Your task to perform on an android device: toggle location history Image 0: 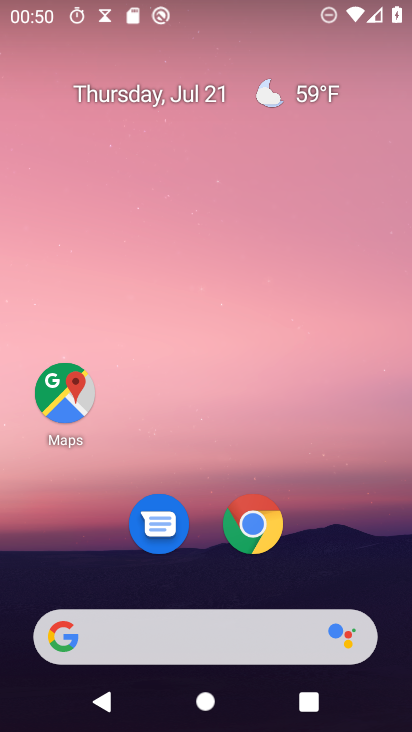
Step 0: press home button
Your task to perform on an android device: toggle location history Image 1: 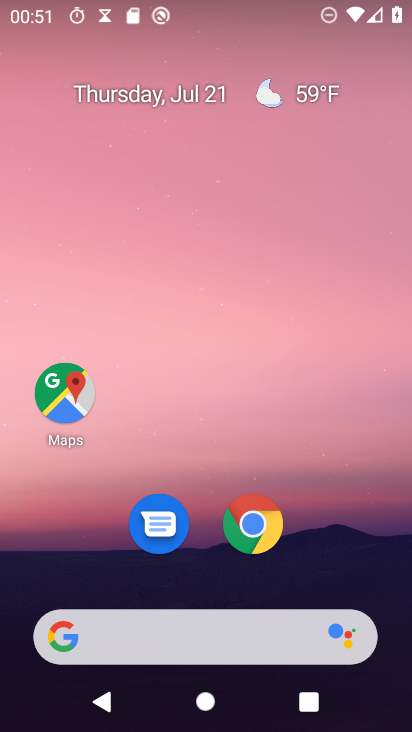
Step 1: drag from (188, 641) to (284, 25)
Your task to perform on an android device: toggle location history Image 2: 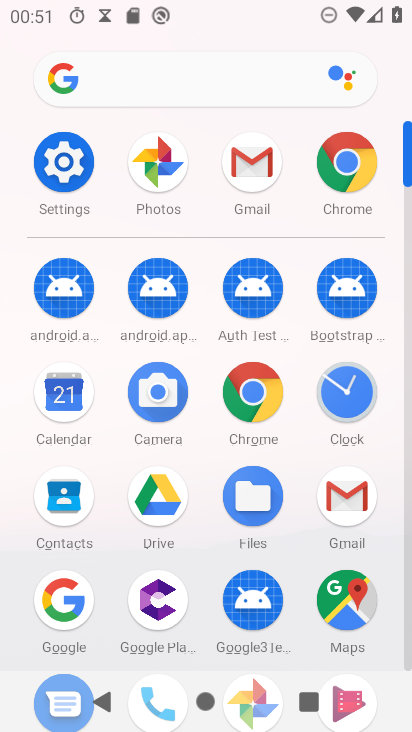
Step 2: click (344, 602)
Your task to perform on an android device: toggle location history Image 3: 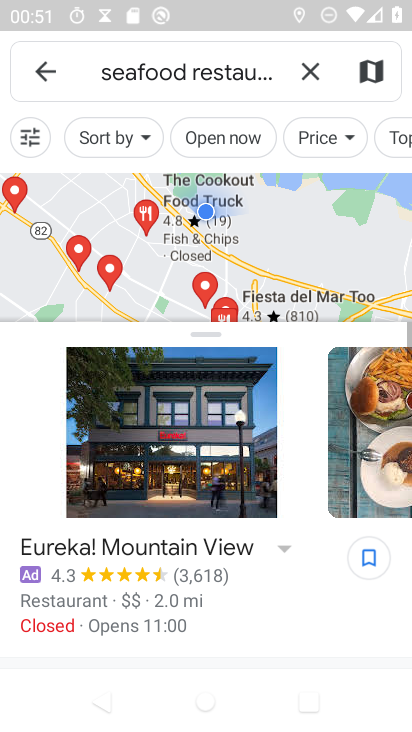
Step 3: click (43, 69)
Your task to perform on an android device: toggle location history Image 4: 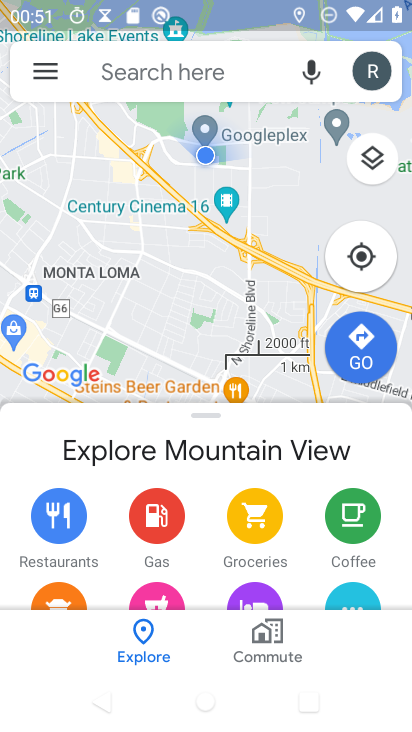
Step 4: click (43, 70)
Your task to perform on an android device: toggle location history Image 5: 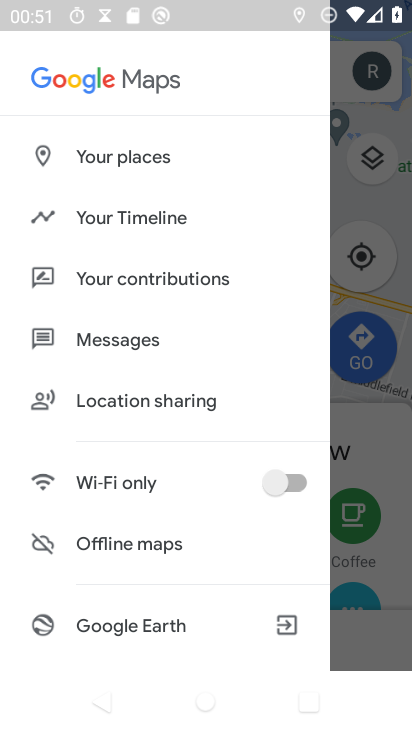
Step 5: click (158, 217)
Your task to perform on an android device: toggle location history Image 6: 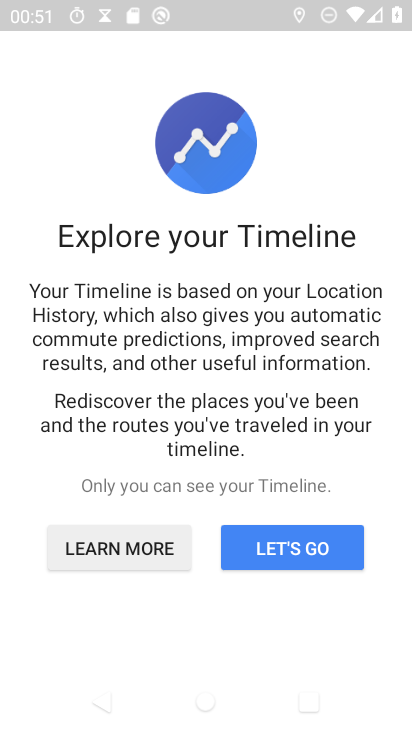
Step 6: click (287, 539)
Your task to perform on an android device: toggle location history Image 7: 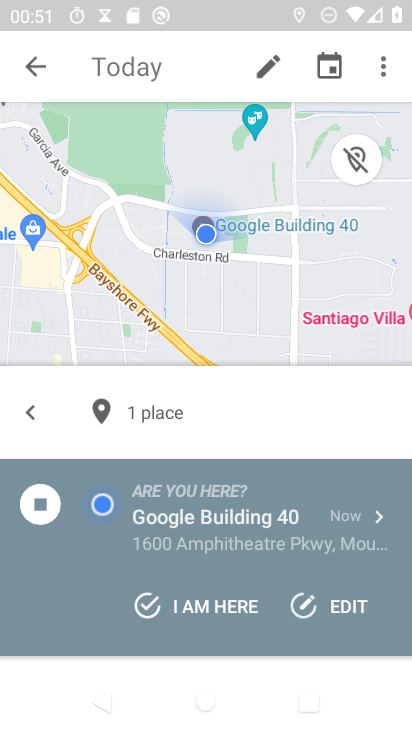
Step 7: click (385, 63)
Your task to perform on an android device: toggle location history Image 8: 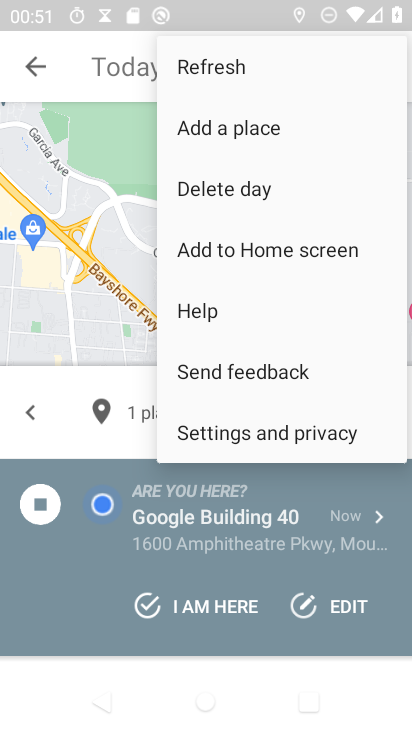
Step 8: click (214, 428)
Your task to perform on an android device: toggle location history Image 9: 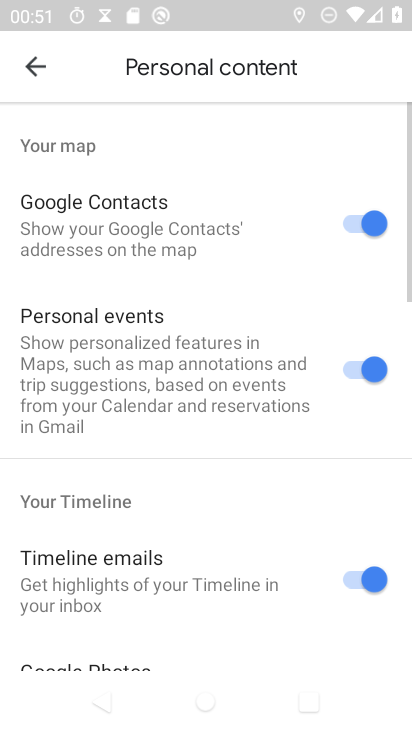
Step 9: drag from (219, 633) to (326, 109)
Your task to perform on an android device: toggle location history Image 10: 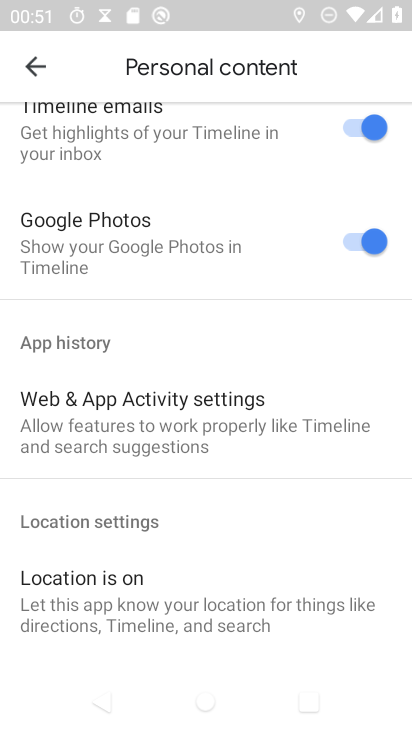
Step 10: drag from (290, 510) to (316, 86)
Your task to perform on an android device: toggle location history Image 11: 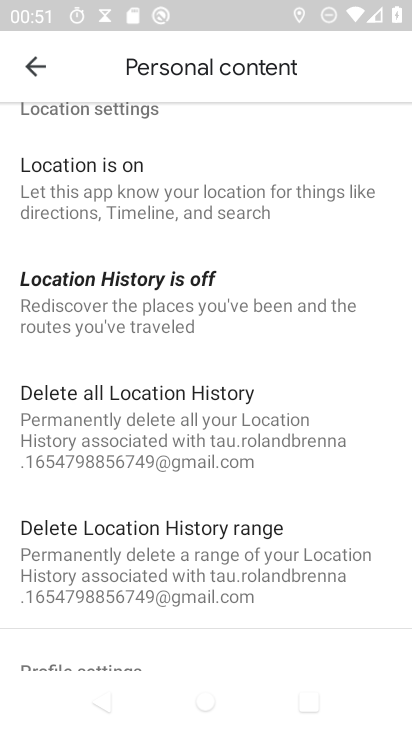
Step 11: click (129, 290)
Your task to perform on an android device: toggle location history Image 12: 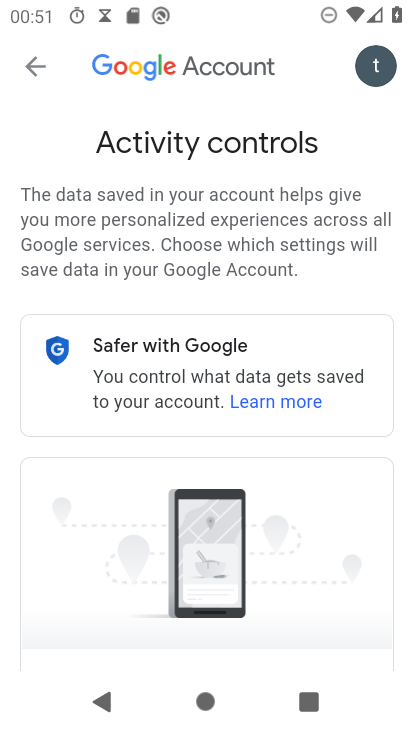
Step 12: drag from (311, 601) to (319, 61)
Your task to perform on an android device: toggle location history Image 13: 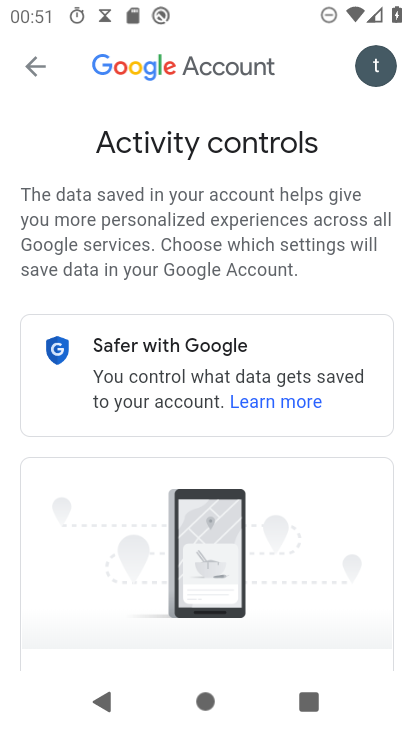
Step 13: drag from (322, 523) to (311, 13)
Your task to perform on an android device: toggle location history Image 14: 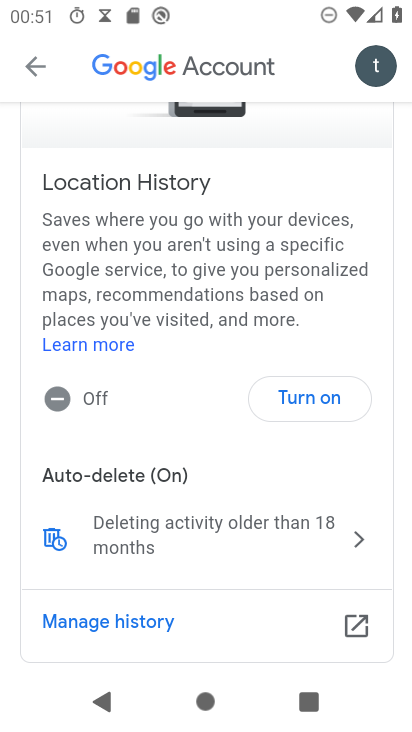
Step 14: click (312, 398)
Your task to perform on an android device: toggle location history Image 15: 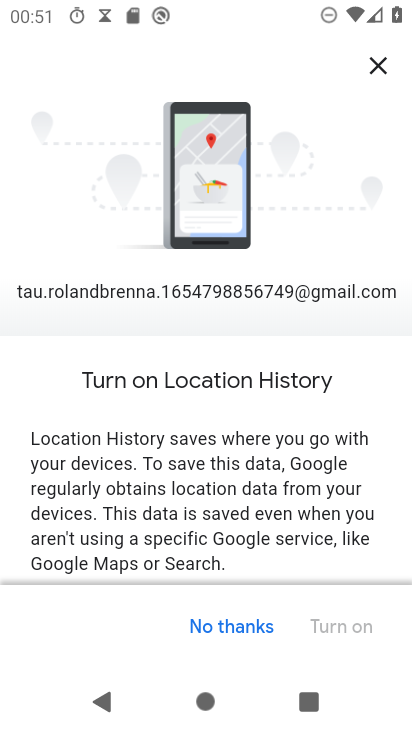
Step 15: drag from (269, 539) to (205, 10)
Your task to perform on an android device: toggle location history Image 16: 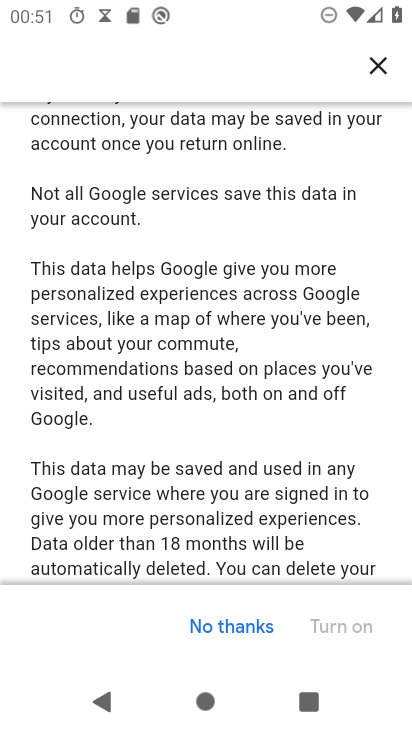
Step 16: drag from (288, 525) to (225, 12)
Your task to perform on an android device: toggle location history Image 17: 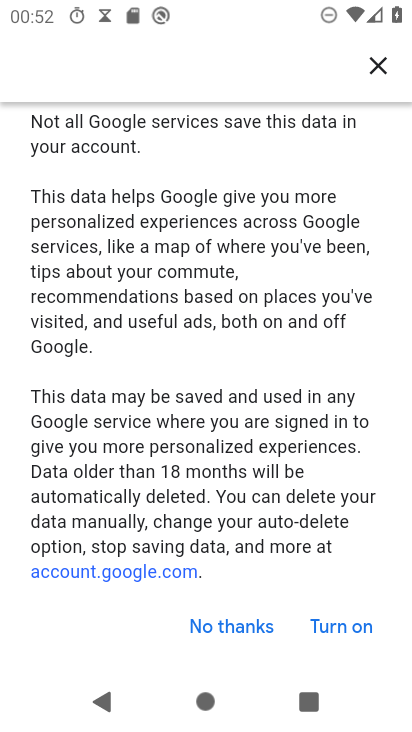
Step 17: click (351, 632)
Your task to perform on an android device: toggle location history Image 18: 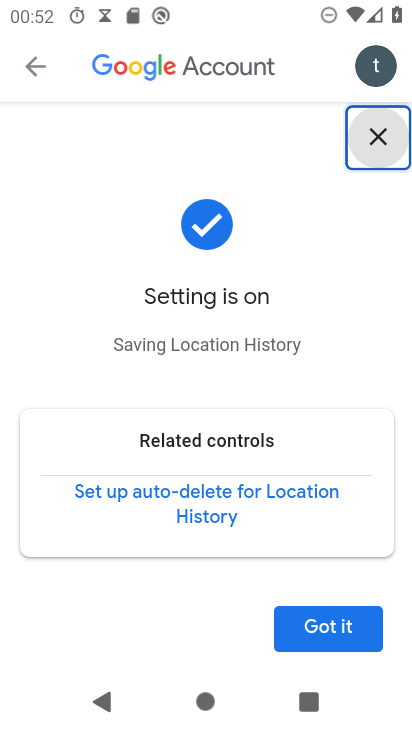
Step 18: click (339, 636)
Your task to perform on an android device: toggle location history Image 19: 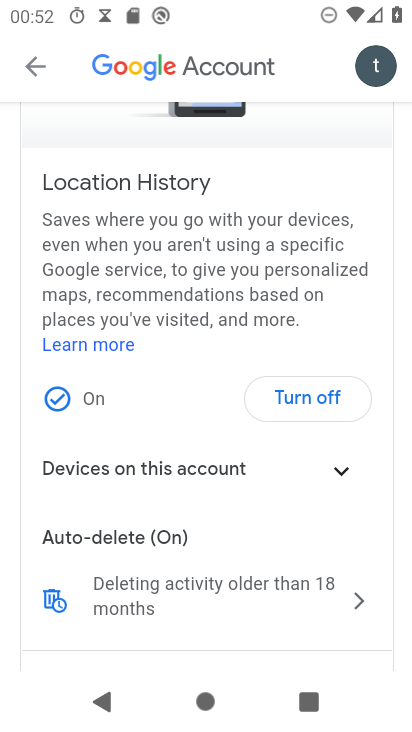
Step 19: task complete